Your task to perform on an android device: Open calendar and show me the first week of next month Image 0: 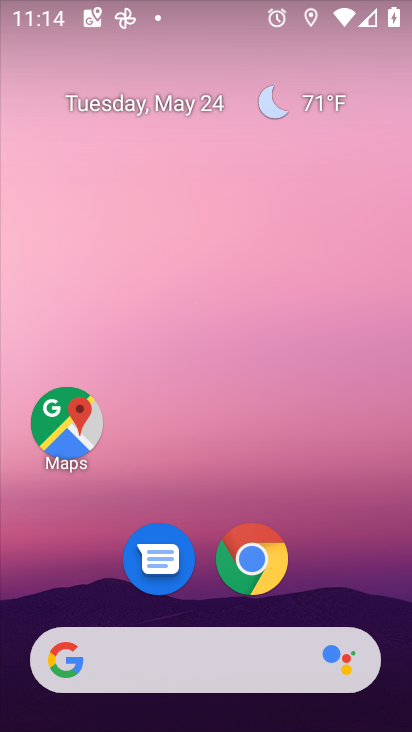
Step 0: drag from (374, 617) to (247, 28)
Your task to perform on an android device: Open calendar and show me the first week of next month Image 1: 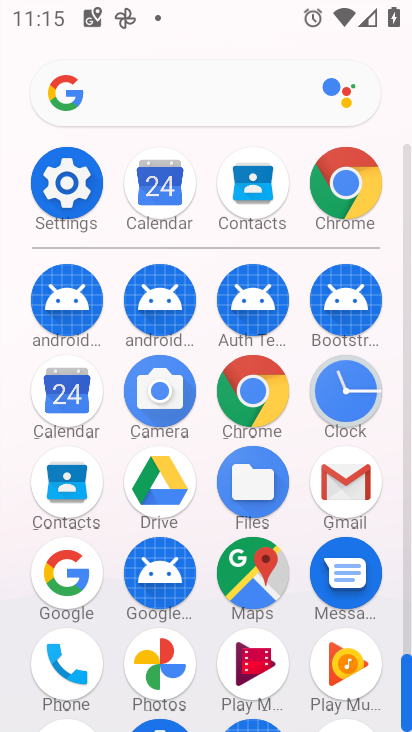
Step 1: click (60, 407)
Your task to perform on an android device: Open calendar and show me the first week of next month Image 2: 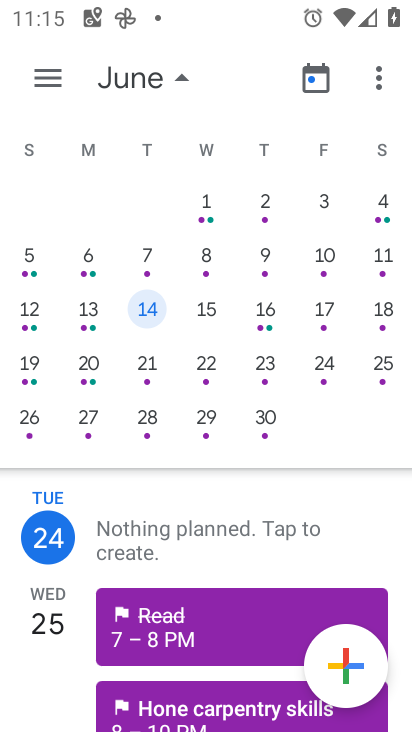
Step 2: drag from (379, 335) to (28, 333)
Your task to perform on an android device: Open calendar and show me the first week of next month Image 3: 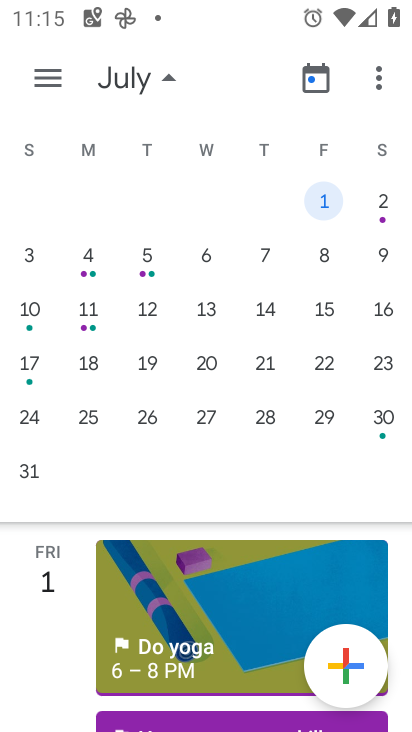
Step 3: click (82, 260)
Your task to perform on an android device: Open calendar and show me the first week of next month Image 4: 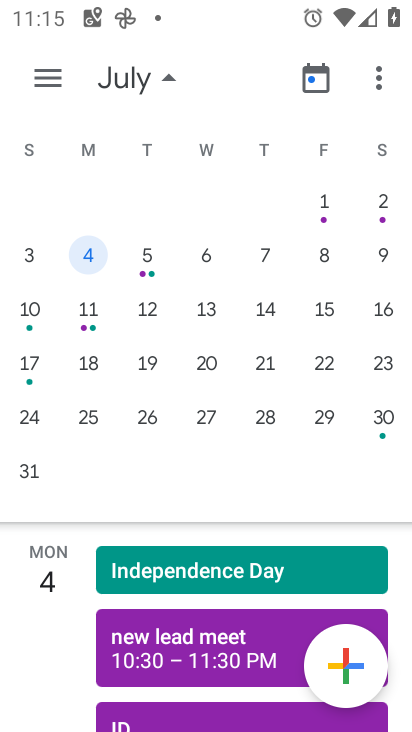
Step 4: task complete